Your task to perform on an android device: Do I have any events today? Image 0: 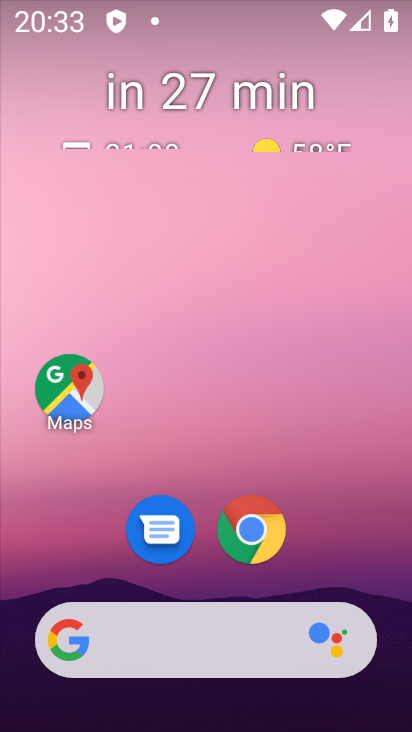
Step 0: drag from (216, 581) to (226, 39)
Your task to perform on an android device: Do I have any events today? Image 1: 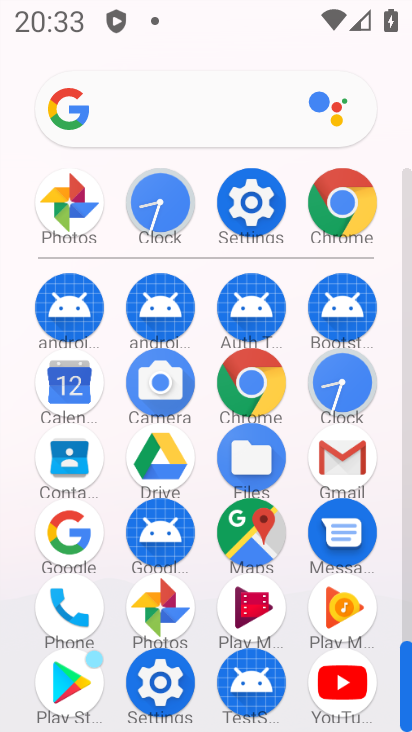
Step 1: click (70, 384)
Your task to perform on an android device: Do I have any events today? Image 2: 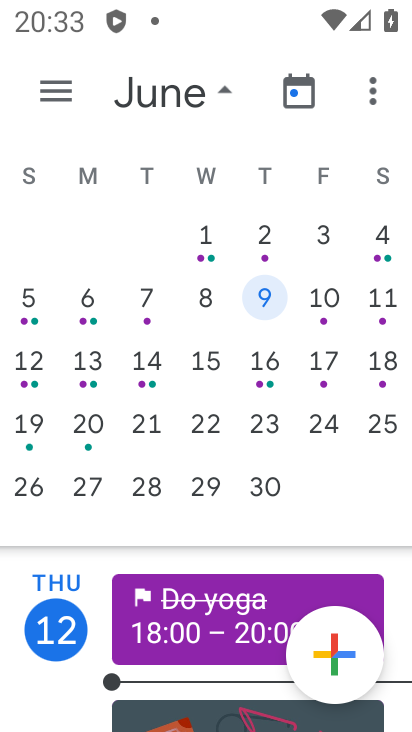
Step 2: drag from (5, 529) to (396, 478)
Your task to perform on an android device: Do I have any events today? Image 3: 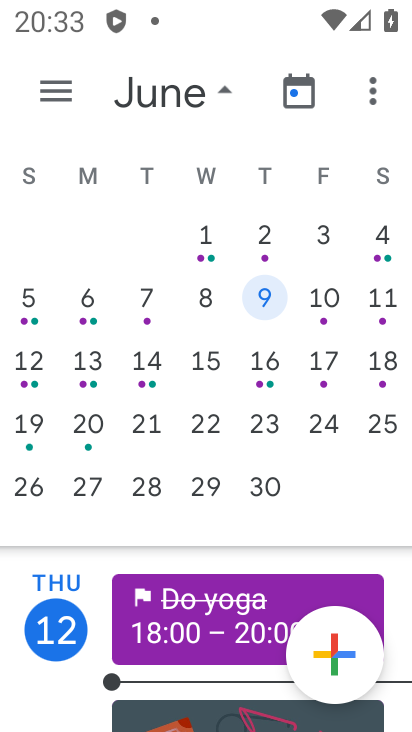
Step 3: drag from (62, 518) to (399, 423)
Your task to perform on an android device: Do I have any events today? Image 4: 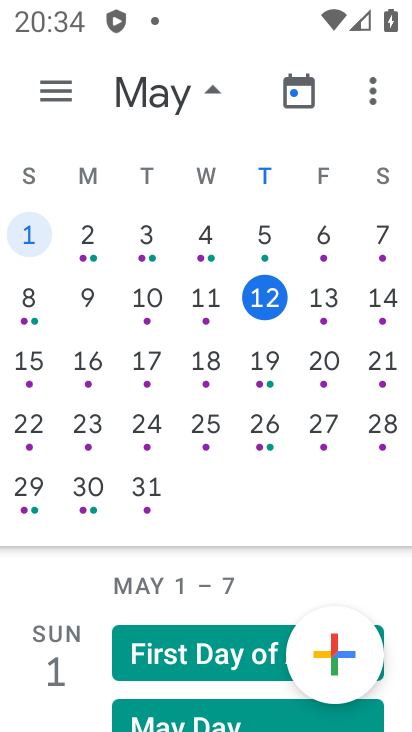
Step 4: click (260, 298)
Your task to perform on an android device: Do I have any events today? Image 5: 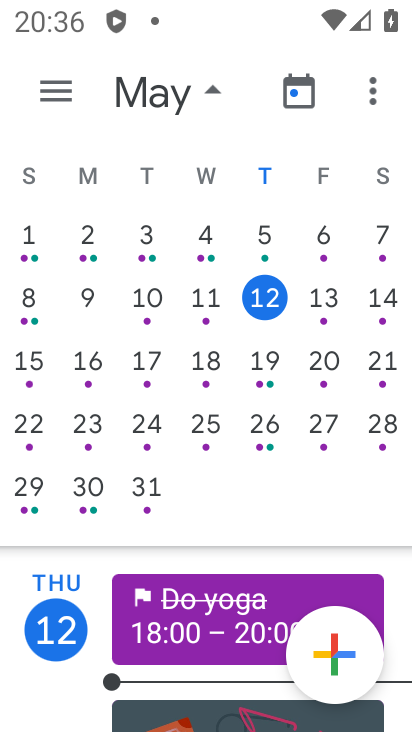
Step 5: task complete